Your task to perform on an android device: change the clock display to digital Image 0: 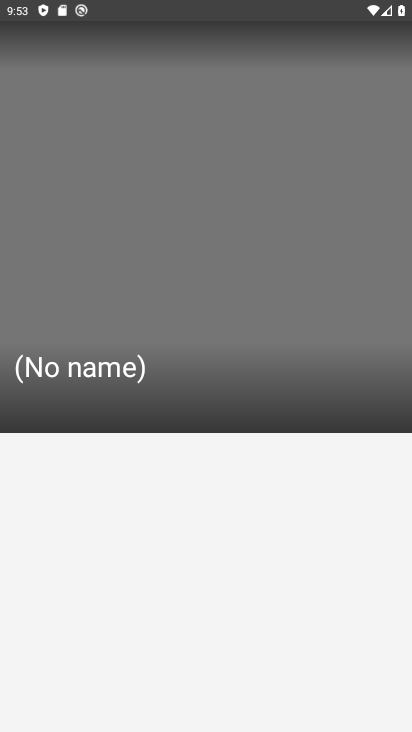
Step 0: press home button
Your task to perform on an android device: change the clock display to digital Image 1: 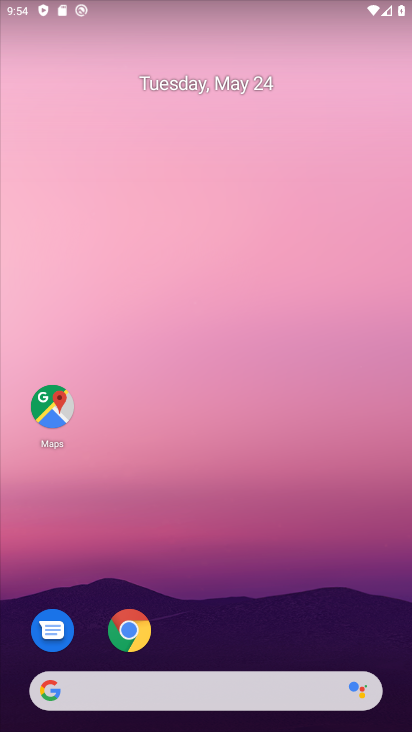
Step 1: drag from (212, 635) to (256, 177)
Your task to perform on an android device: change the clock display to digital Image 2: 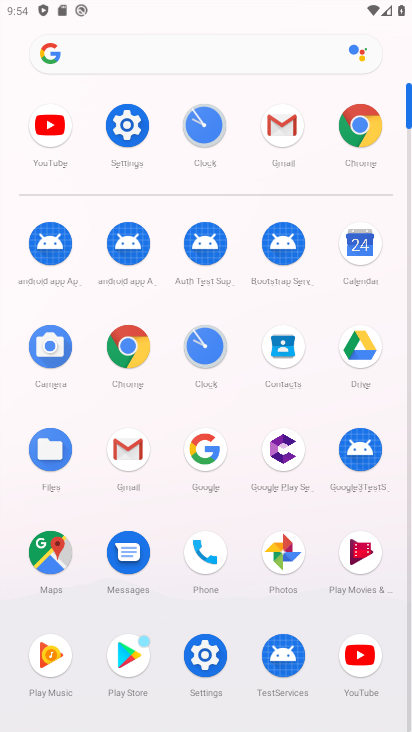
Step 2: click (204, 340)
Your task to perform on an android device: change the clock display to digital Image 3: 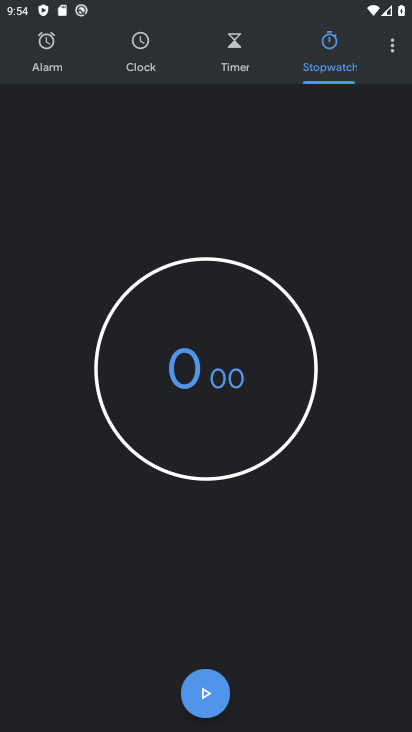
Step 3: click (393, 50)
Your task to perform on an android device: change the clock display to digital Image 4: 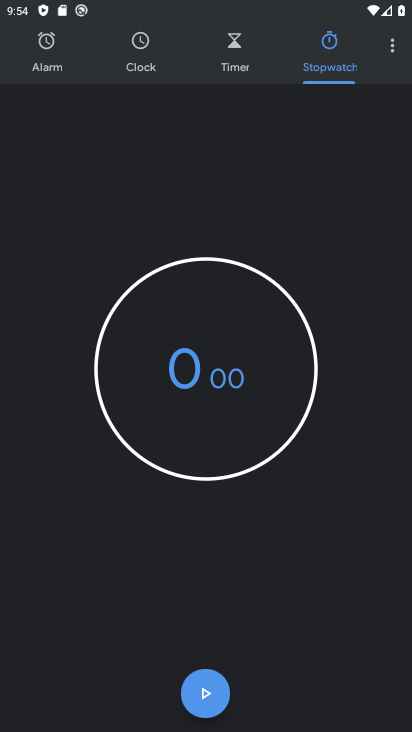
Step 4: click (396, 52)
Your task to perform on an android device: change the clock display to digital Image 5: 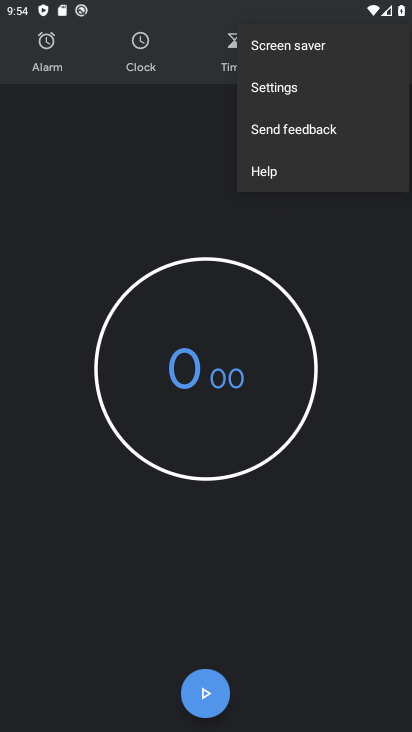
Step 5: click (298, 90)
Your task to perform on an android device: change the clock display to digital Image 6: 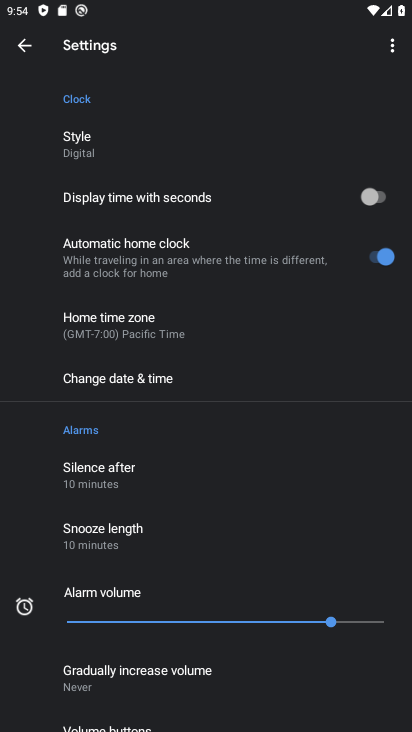
Step 6: click (131, 144)
Your task to perform on an android device: change the clock display to digital Image 7: 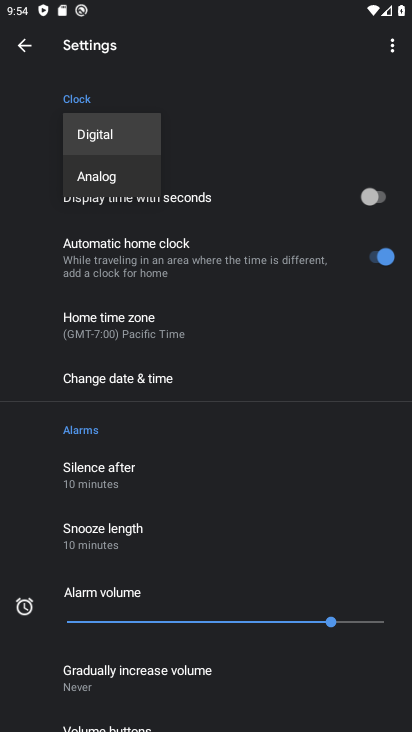
Step 7: click (124, 134)
Your task to perform on an android device: change the clock display to digital Image 8: 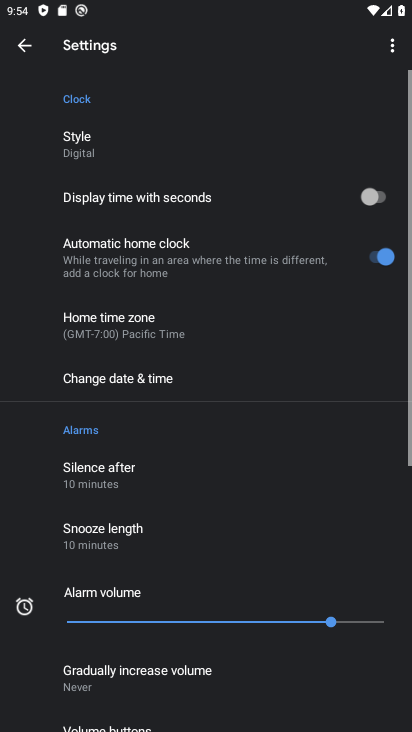
Step 8: task complete